Your task to perform on an android device: Open maps Image 0: 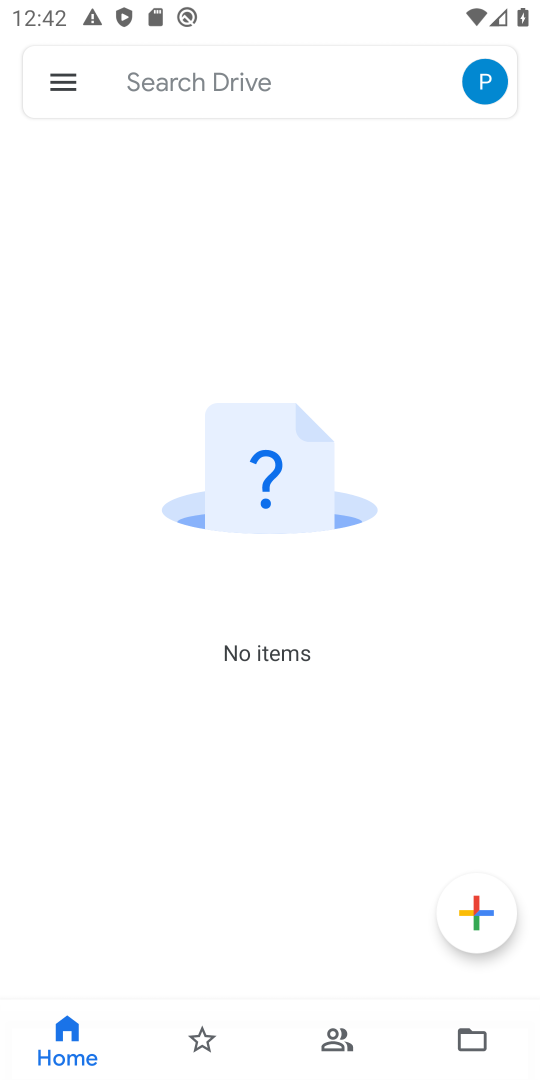
Step 0: press back button
Your task to perform on an android device: Open maps Image 1: 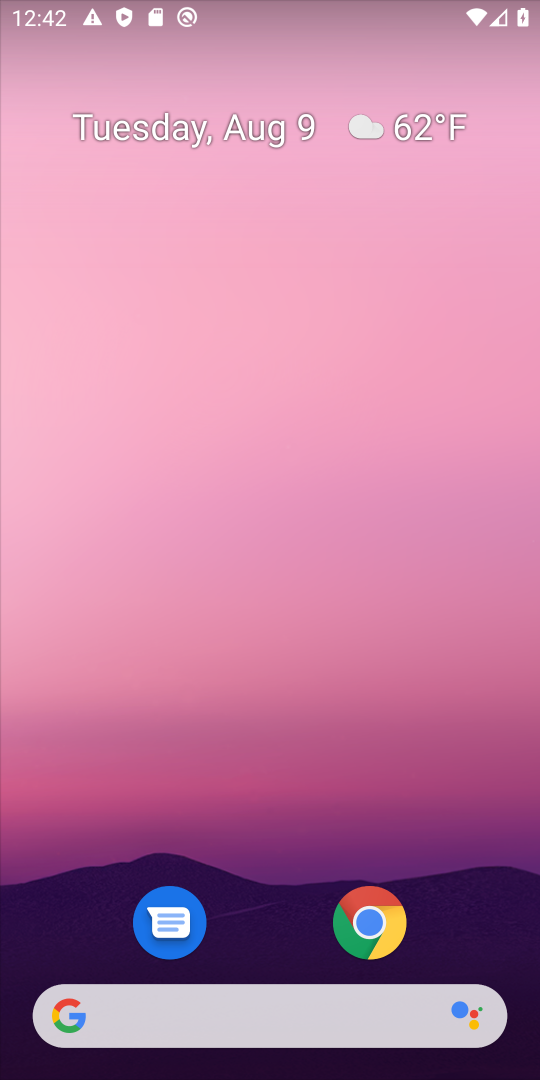
Step 1: drag from (318, 975) to (231, 10)
Your task to perform on an android device: Open maps Image 2: 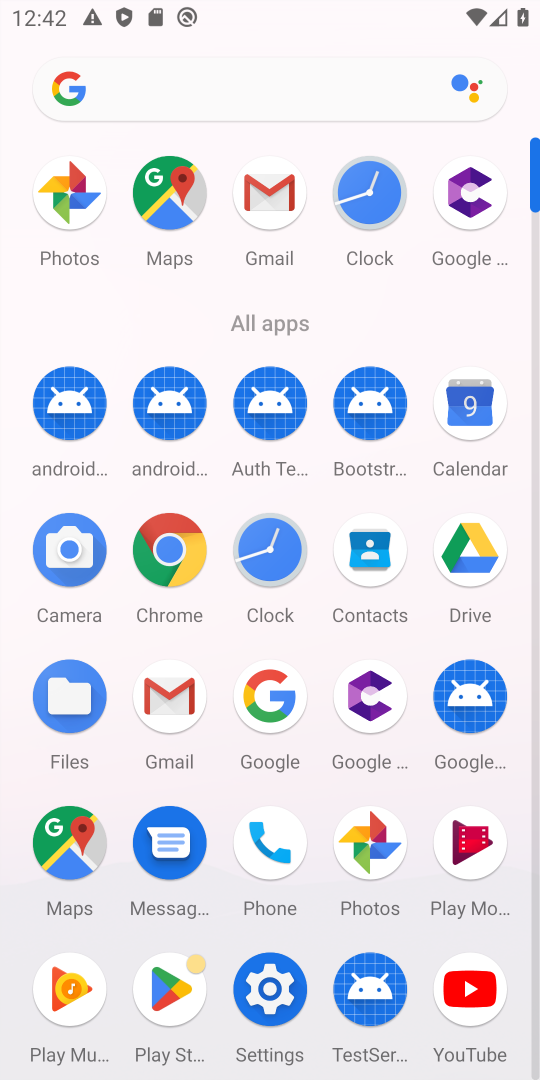
Step 2: click (39, 842)
Your task to perform on an android device: Open maps Image 3: 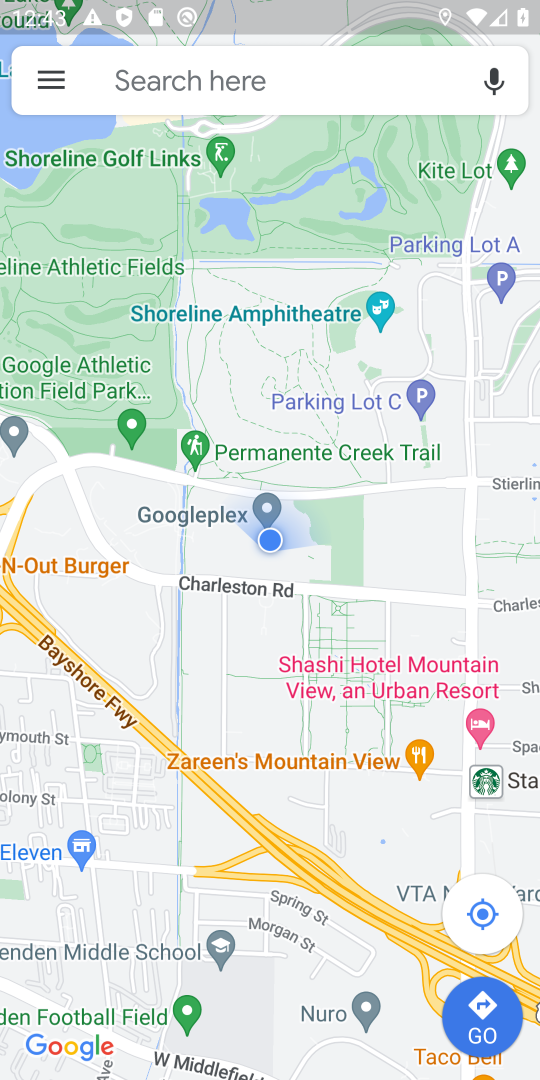
Step 3: task complete